Your task to perform on an android device: What's the weather? Image 0: 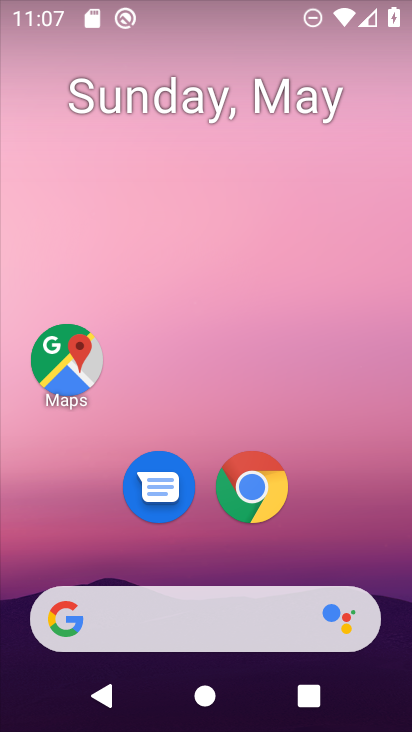
Step 0: click (267, 501)
Your task to perform on an android device: What's the weather? Image 1: 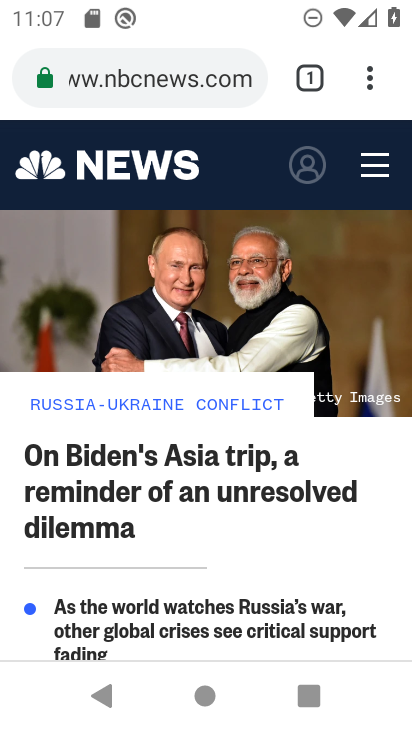
Step 1: click (216, 89)
Your task to perform on an android device: What's the weather? Image 2: 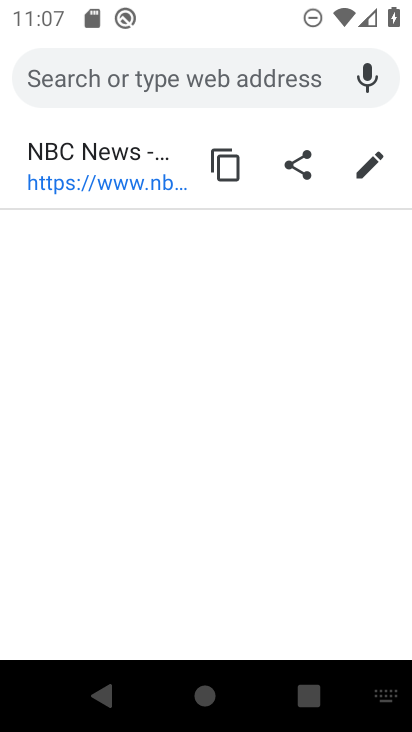
Step 2: type "What's the weather?"
Your task to perform on an android device: What's the weather? Image 3: 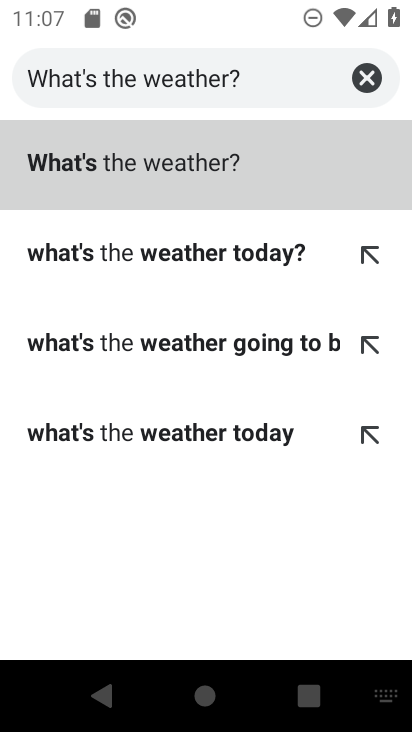
Step 3: click (197, 159)
Your task to perform on an android device: What's the weather? Image 4: 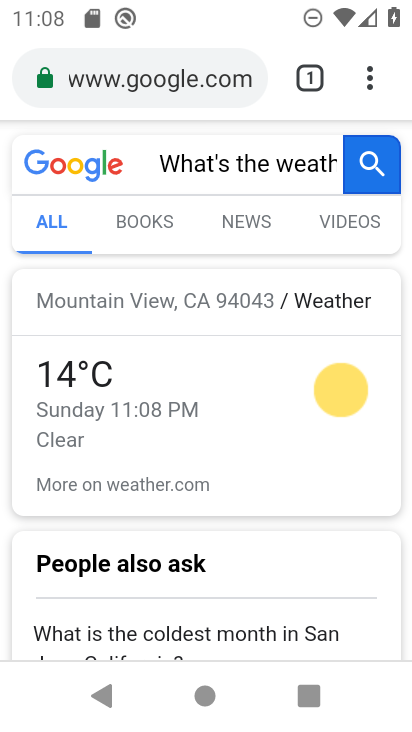
Step 4: task complete